Your task to perform on an android device: open device folders in google photos Image 0: 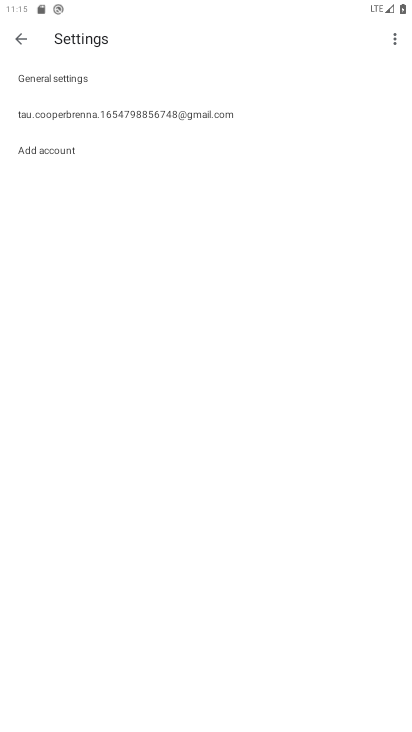
Step 0: press home button
Your task to perform on an android device: open device folders in google photos Image 1: 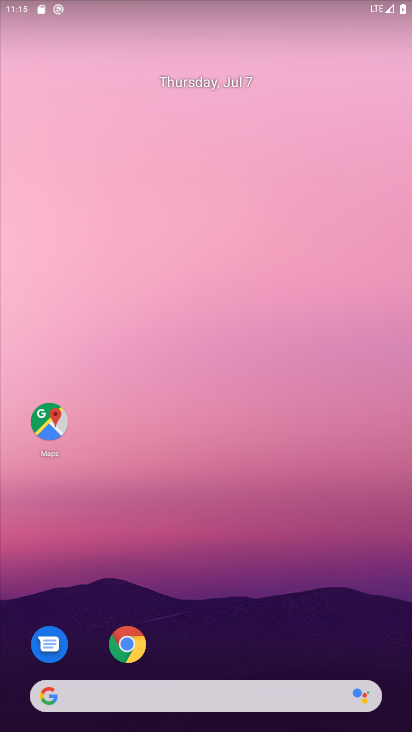
Step 1: drag from (29, 713) to (120, 277)
Your task to perform on an android device: open device folders in google photos Image 2: 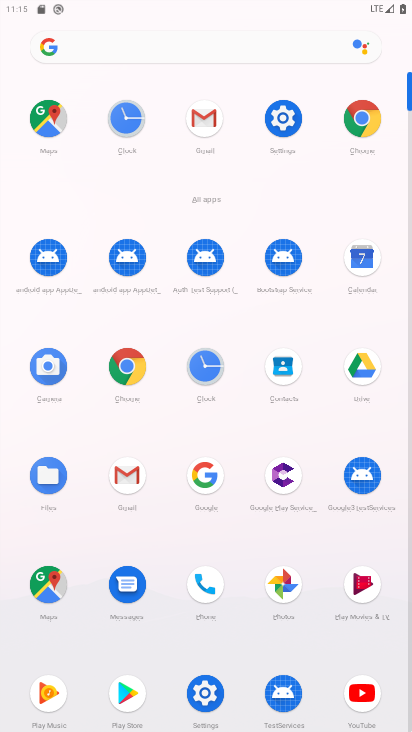
Step 2: click (291, 591)
Your task to perform on an android device: open device folders in google photos Image 3: 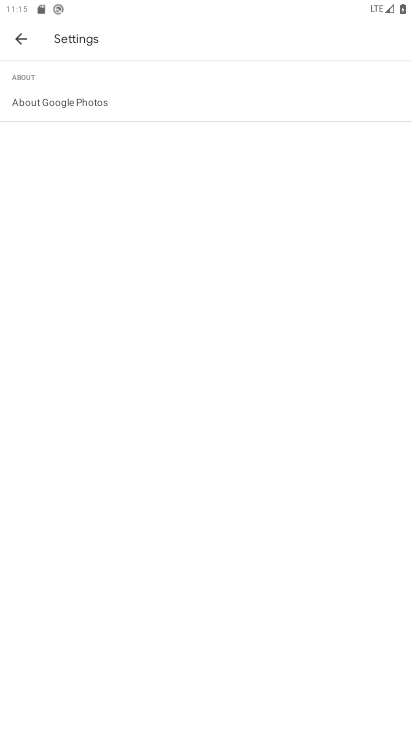
Step 3: click (14, 37)
Your task to perform on an android device: open device folders in google photos Image 4: 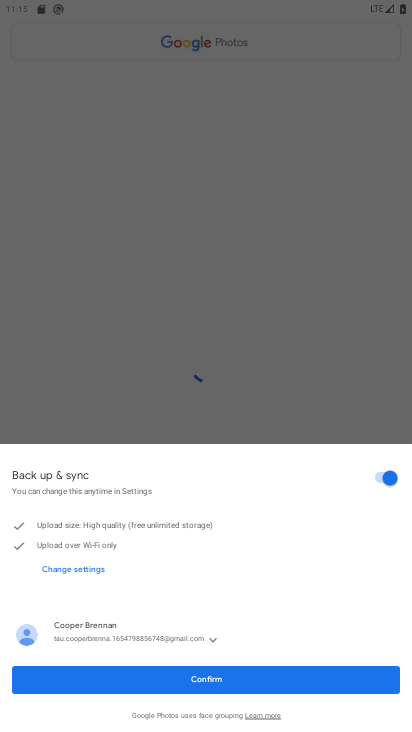
Step 4: click (243, 674)
Your task to perform on an android device: open device folders in google photos Image 5: 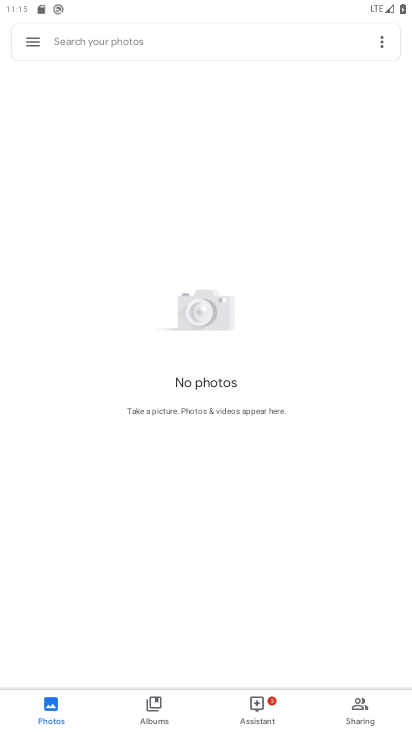
Step 5: click (145, 708)
Your task to perform on an android device: open device folders in google photos Image 6: 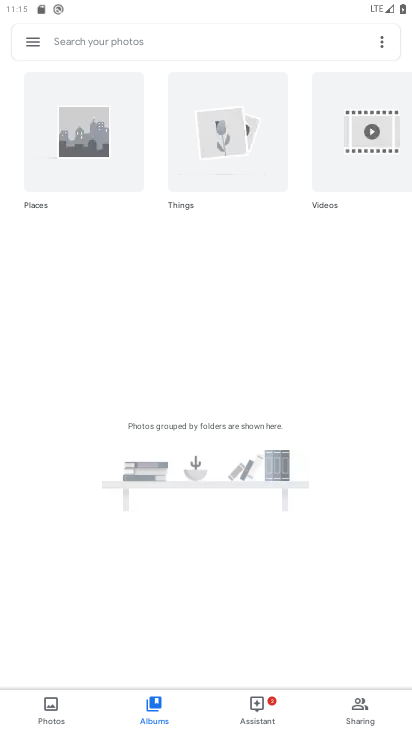
Step 6: task complete